Your task to perform on an android device: open the mobile data screen to see how much data has been used Image 0: 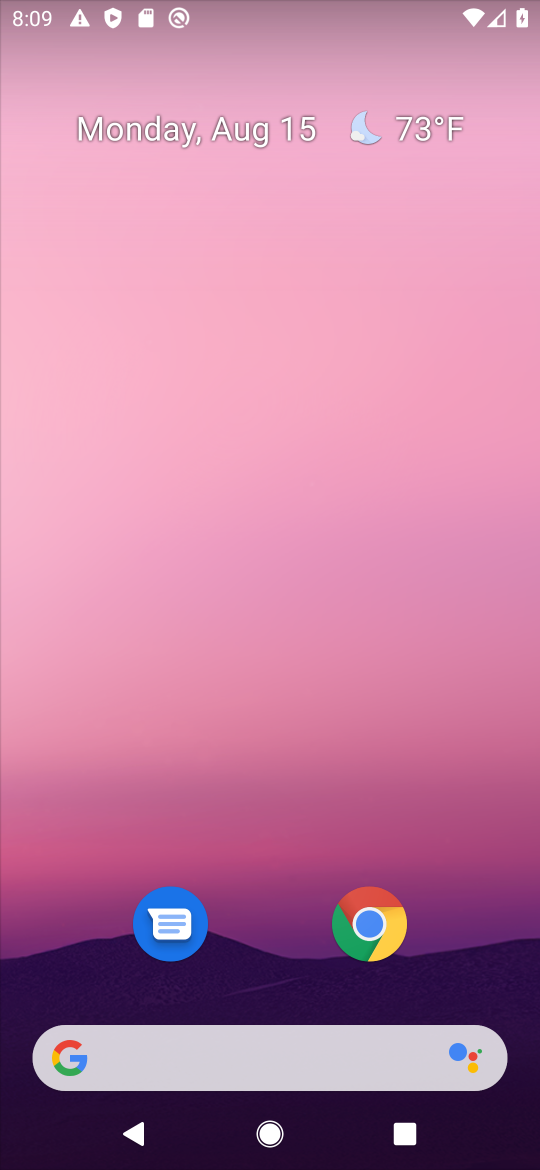
Step 0: drag from (488, 978) to (430, 53)
Your task to perform on an android device: open the mobile data screen to see how much data has been used Image 1: 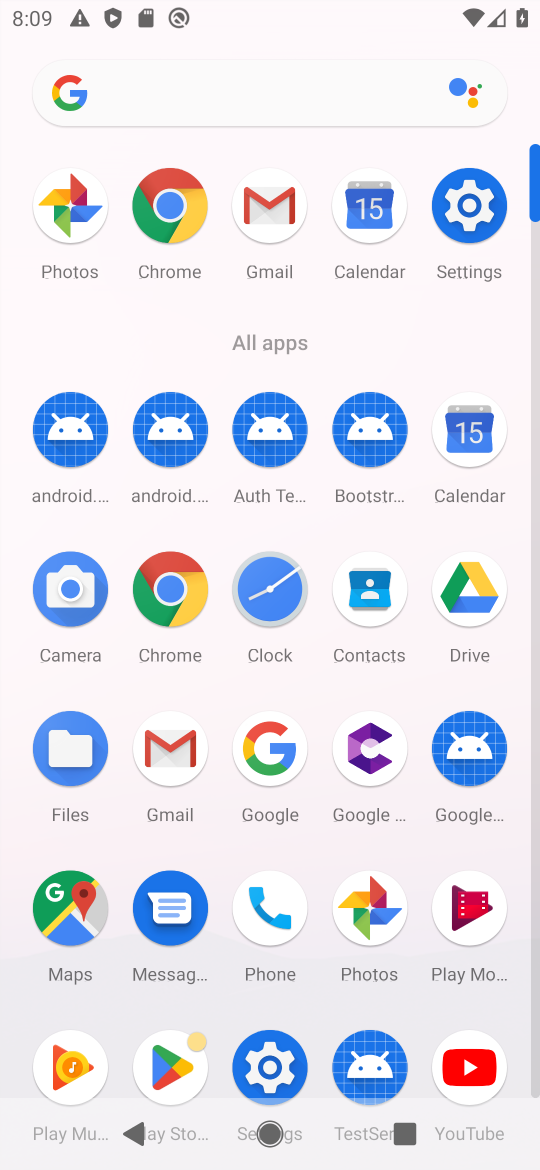
Step 1: click (269, 1067)
Your task to perform on an android device: open the mobile data screen to see how much data has been used Image 2: 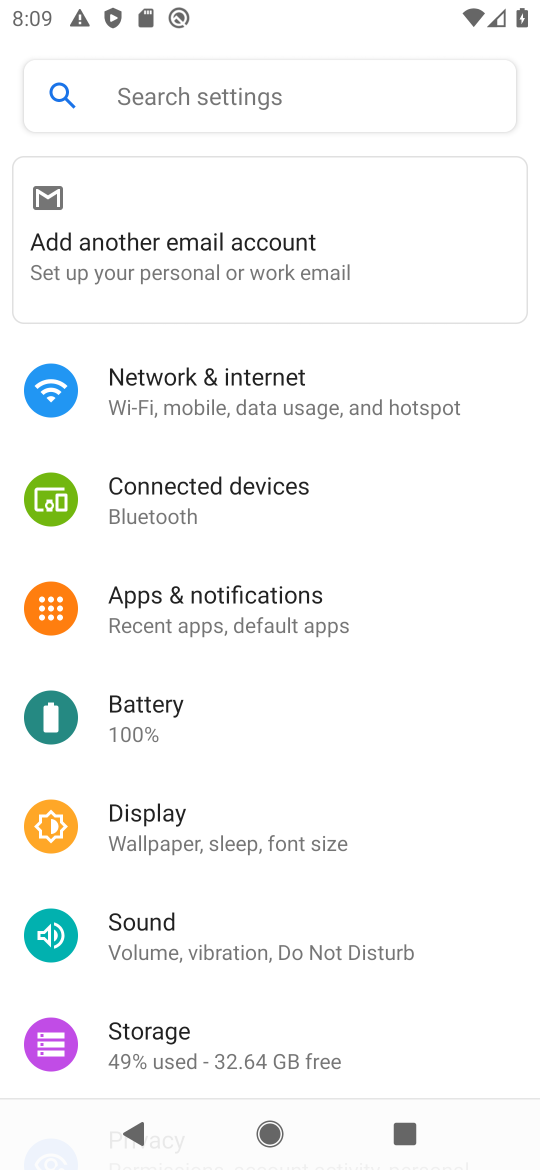
Step 2: click (190, 392)
Your task to perform on an android device: open the mobile data screen to see how much data has been used Image 3: 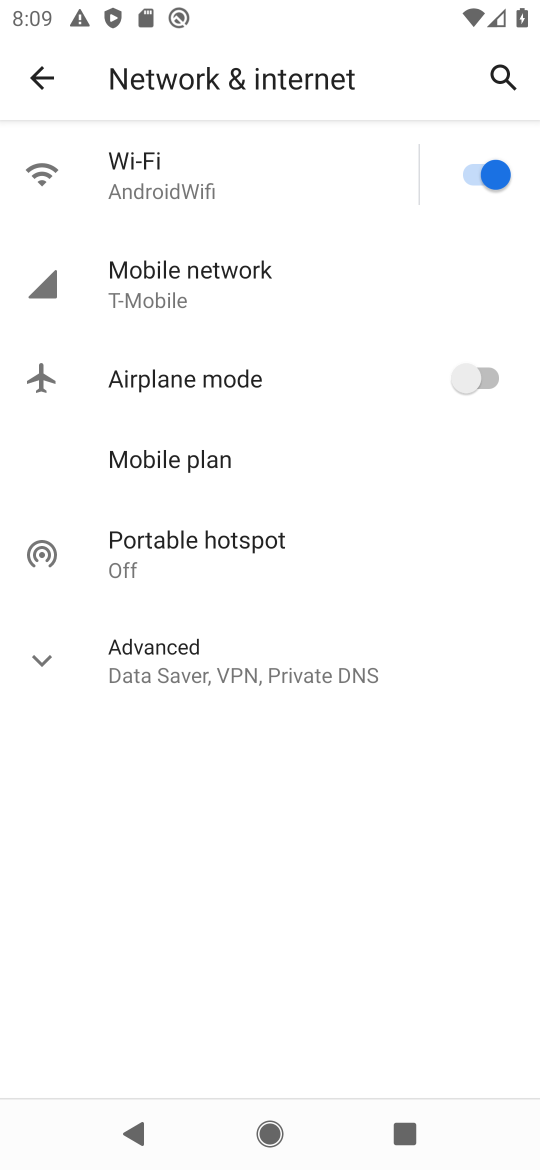
Step 3: click (202, 284)
Your task to perform on an android device: open the mobile data screen to see how much data has been used Image 4: 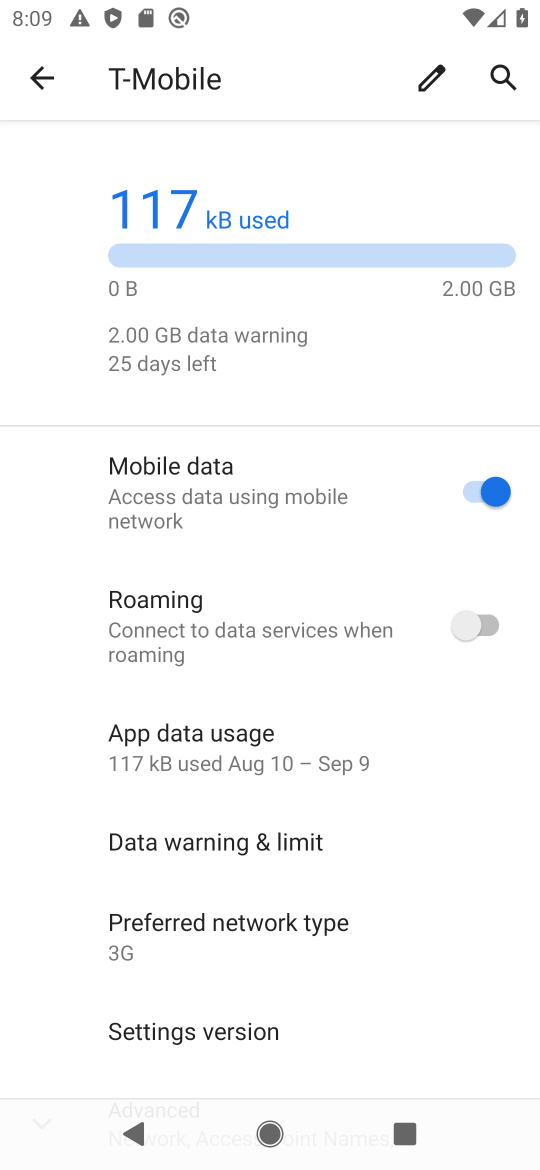
Step 4: task complete